Your task to perform on an android device: Open internet settings Image 0: 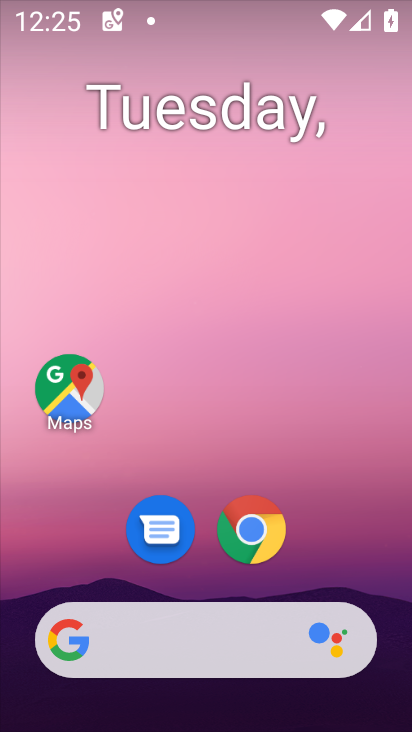
Step 0: drag from (260, 650) to (296, 387)
Your task to perform on an android device: Open internet settings Image 1: 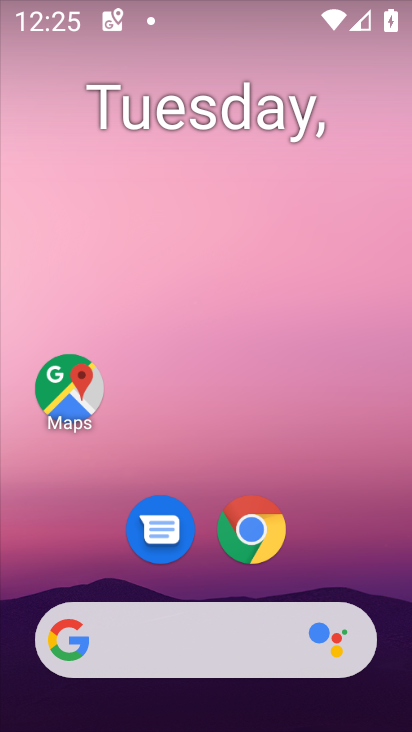
Step 1: drag from (195, 690) to (287, 76)
Your task to perform on an android device: Open internet settings Image 2: 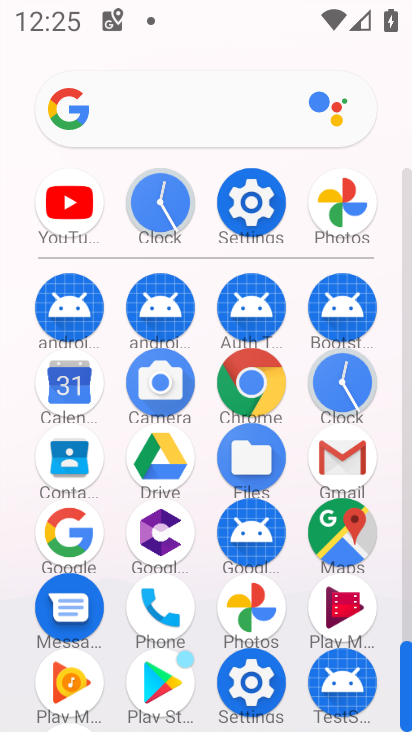
Step 2: click (242, 188)
Your task to perform on an android device: Open internet settings Image 3: 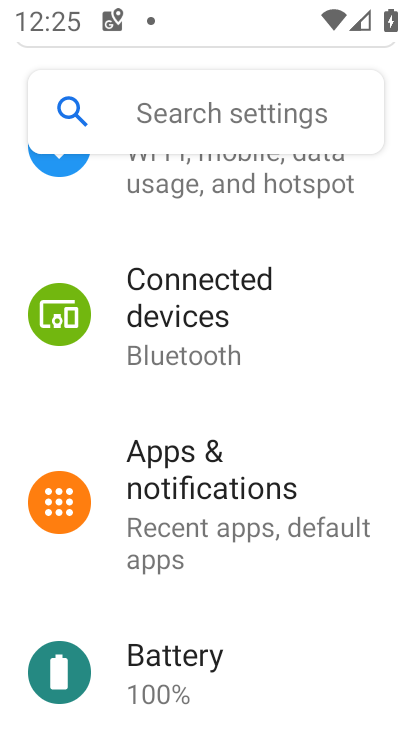
Step 3: click (190, 159)
Your task to perform on an android device: Open internet settings Image 4: 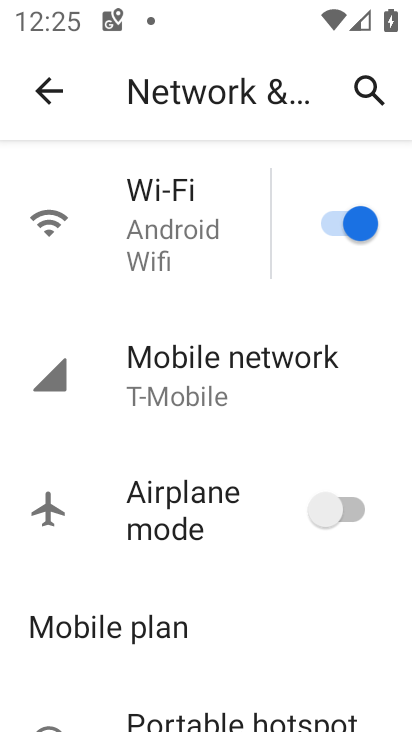
Step 4: task complete